Your task to perform on an android device: search for starred emails in the gmail app Image 0: 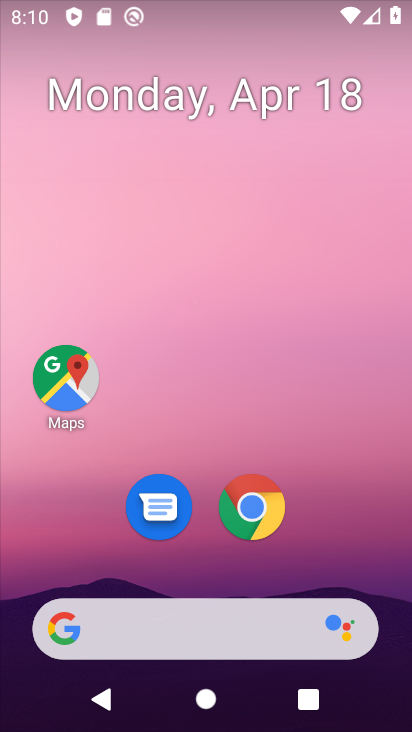
Step 0: drag from (322, 411) to (274, 17)
Your task to perform on an android device: search for starred emails in the gmail app Image 1: 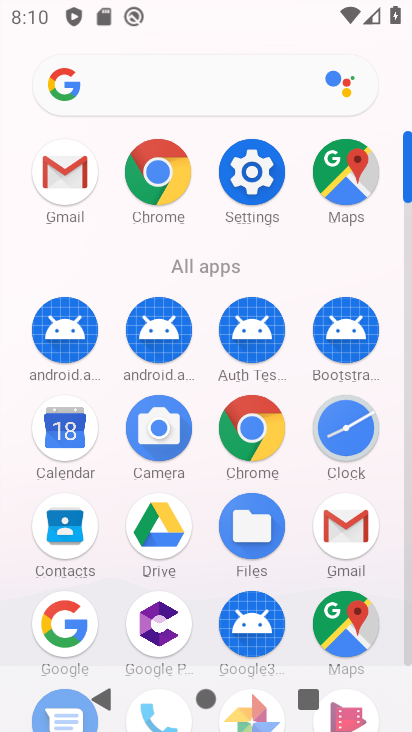
Step 1: click (73, 168)
Your task to perform on an android device: search for starred emails in the gmail app Image 2: 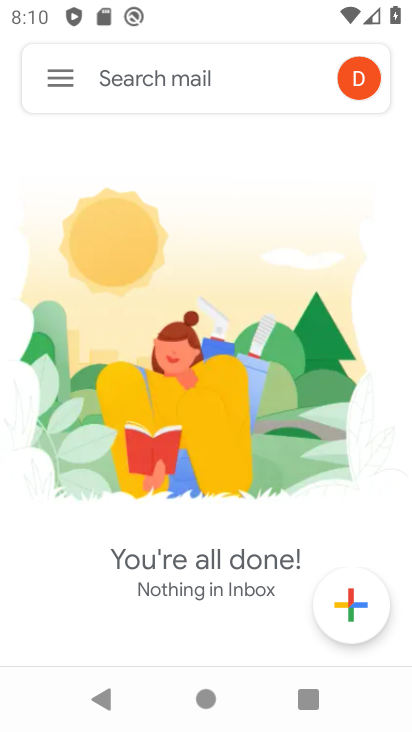
Step 2: click (68, 86)
Your task to perform on an android device: search for starred emails in the gmail app Image 3: 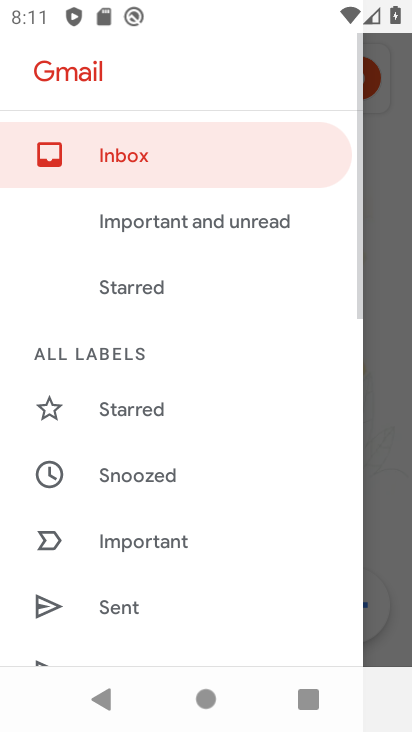
Step 3: click (141, 285)
Your task to perform on an android device: search for starred emails in the gmail app Image 4: 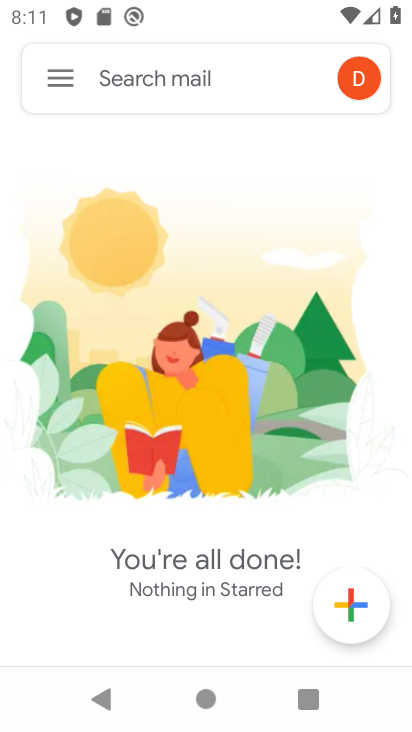
Step 4: task complete